Your task to perform on an android device: Go to notification settings Image 0: 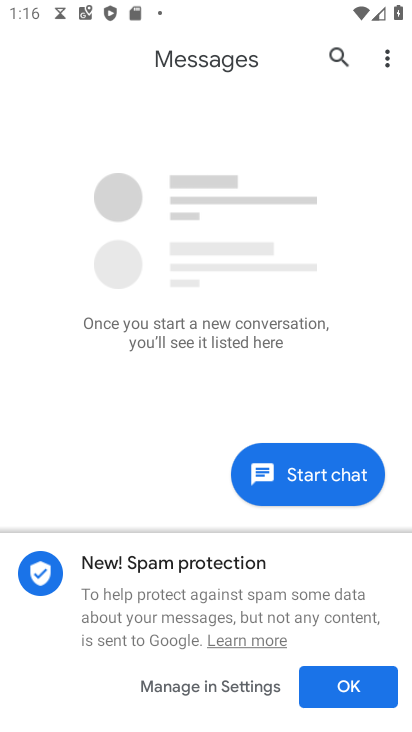
Step 0: press home button
Your task to perform on an android device: Go to notification settings Image 1: 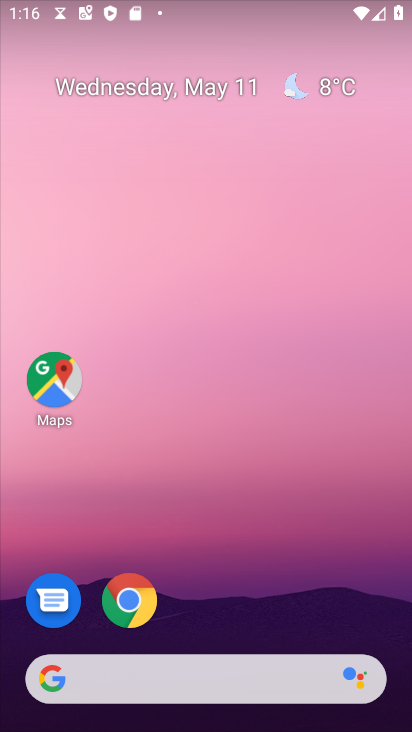
Step 1: drag from (269, 586) to (205, 57)
Your task to perform on an android device: Go to notification settings Image 2: 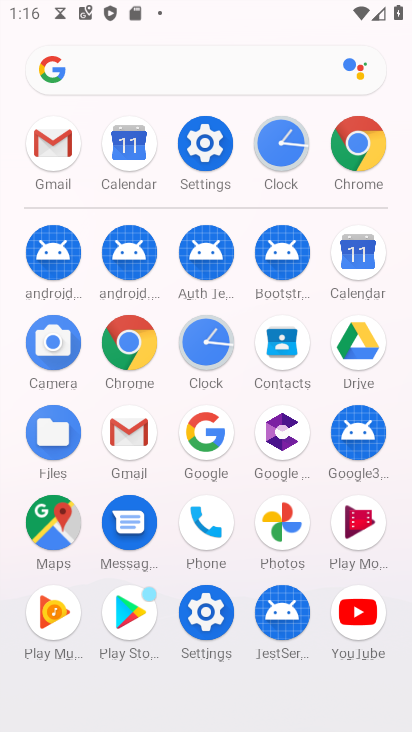
Step 2: click (201, 152)
Your task to perform on an android device: Go to notification settings Image 3: 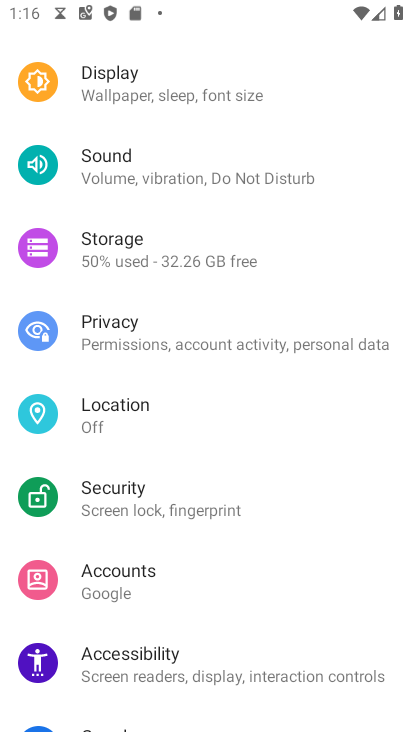
Step 3: drag from (221, 191) to (214, 579)
Your task to perform on an android device: Go to notification settings Image 4: 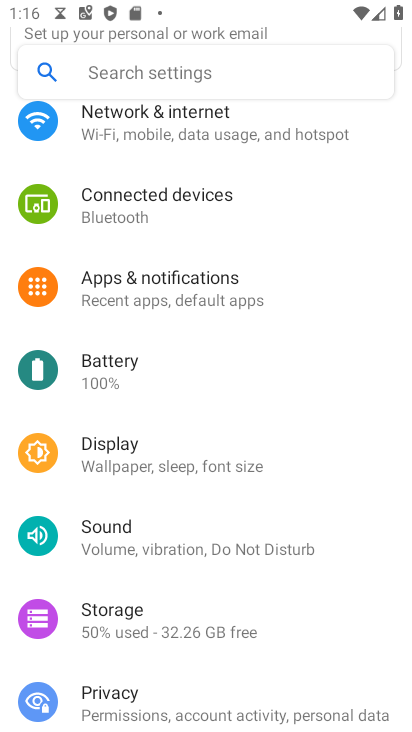
Step 4: click (203, 286)
Your task to perform on an android device: Go to notification settings Image 5: 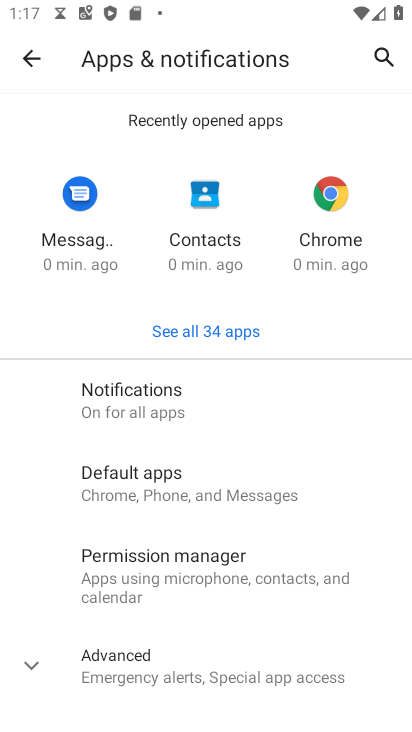
Step 5: task complete